Your task to perform on an android device: What is the news today? Image 0: 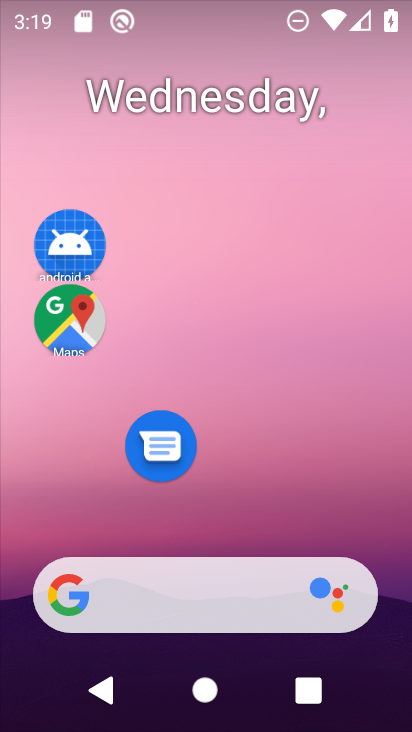
Step 0: drag from (324, 450) to (253, 89)
Your task to perform on an android device: What is the news today? Image 1: 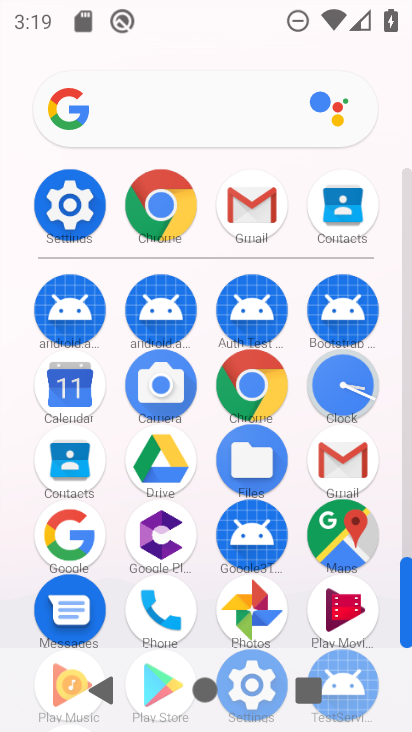
Step 1: click (163, 236)
Your task to perform on an android device: What is the news today? Image 2: 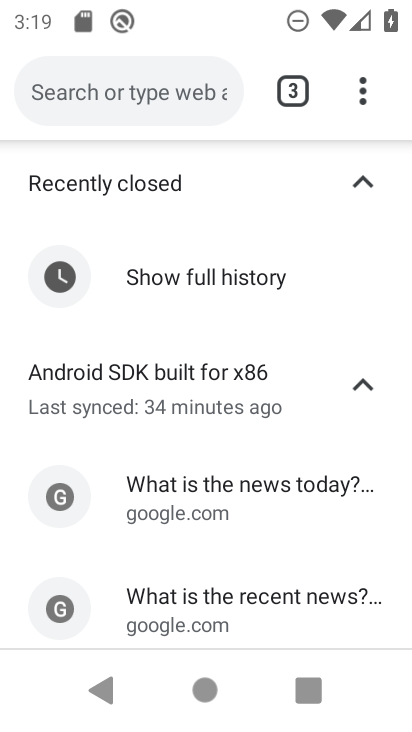
Step 2: click (302, 86)
Your task to perform on an android device: What is the news today? Image 3: 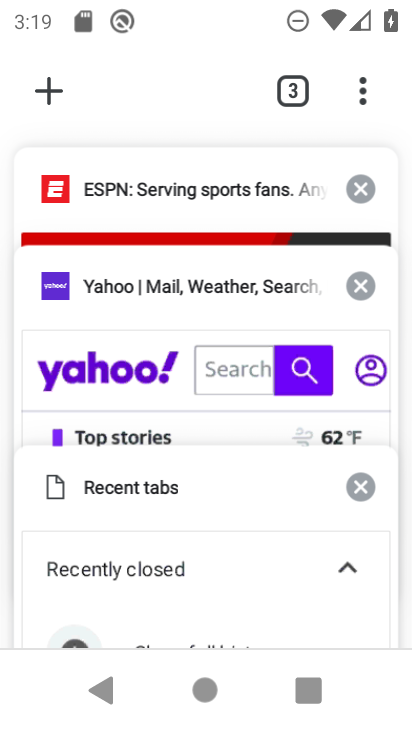
Step 3: click (50, 88)
Your task to perform on an android device: What is the news today? Image 4: 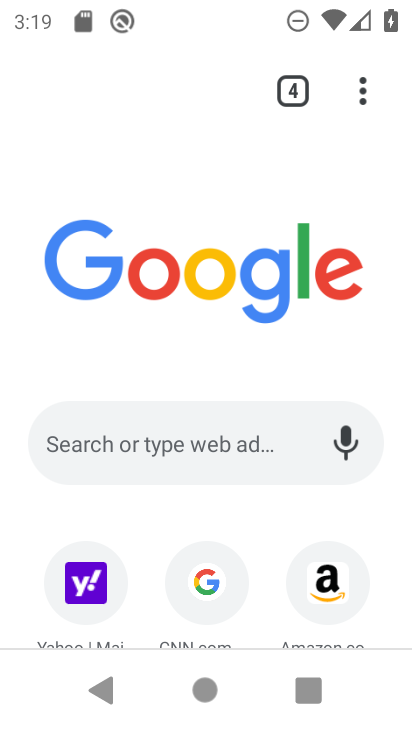
Step 4: drag from (339, 510) to (304, 30)
Your task to perform on an android device: What is the news today? Image 5: 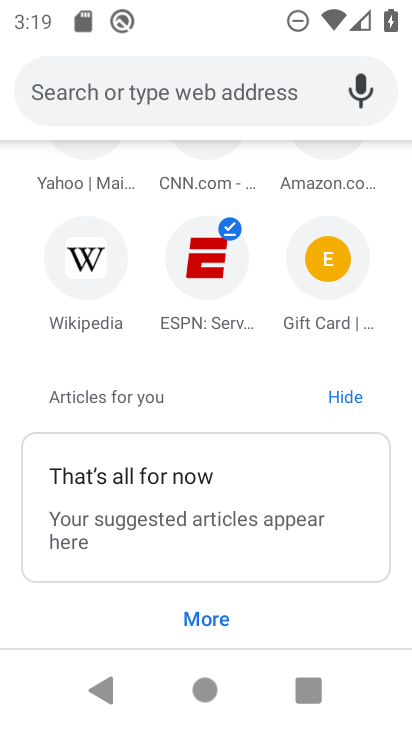
Step 5: click (218, 609)
Your task to perform on an android device: What is the news today? Image 6: 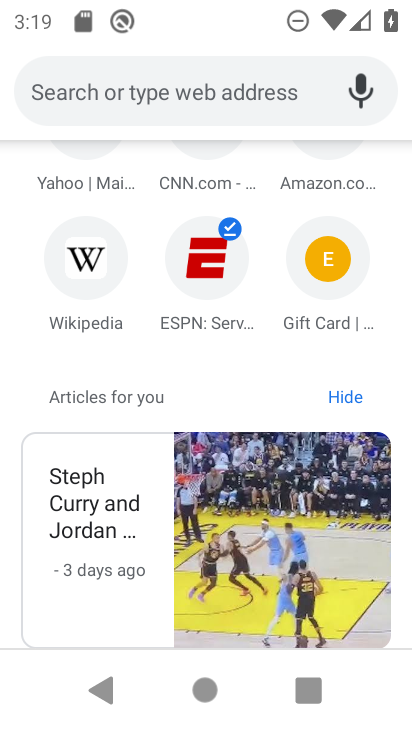
Step 6: task complete